Your task to perform on an android device: turn pop-ups on in chrome Image 0: 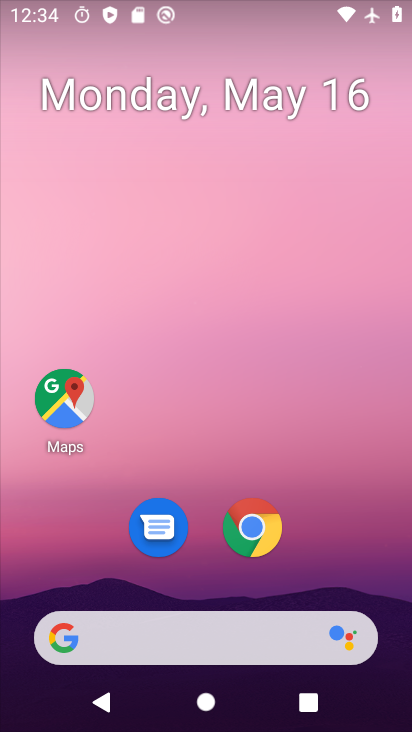
Step 0: press home button
Your task to perform on an android device: turn pop-ups on in chrome Image 1: 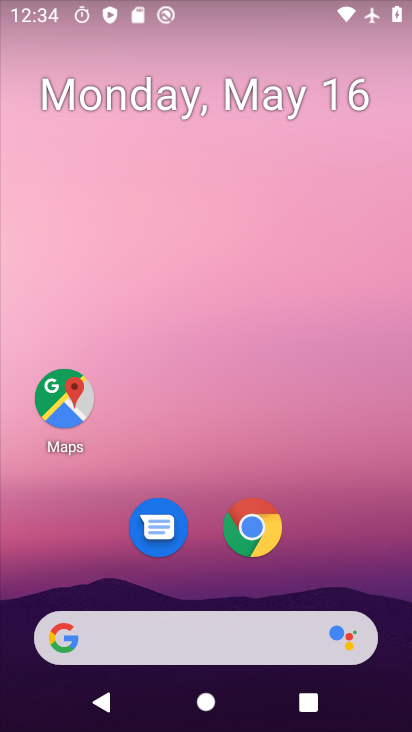
Step 1: click (252, 547)
Your task to perform on an android device: turn pop-ups on in chrome Image 2: 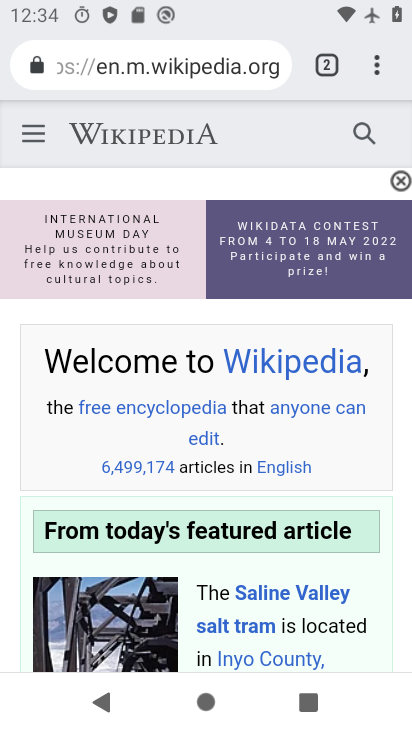
Step 2: drag from (377, 59) to (226, 592)
Your task to perform on an android device: turn pop-ups on in chrome Image 3: 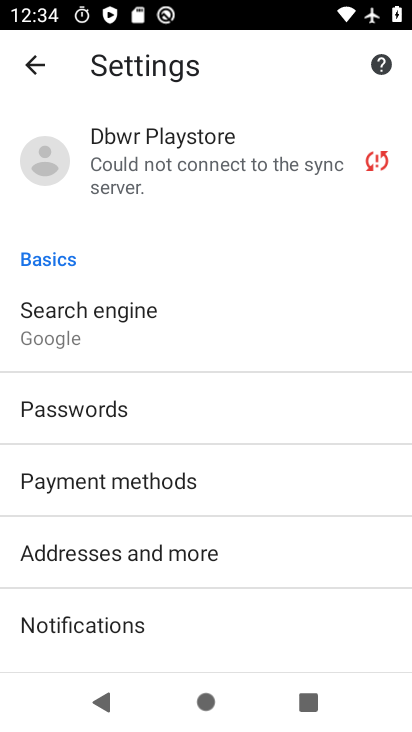
Step 3: drag from (171, 617) to (353, 169)
Your task to perform on an android device: turn pop-ups on in chrome Image 4: 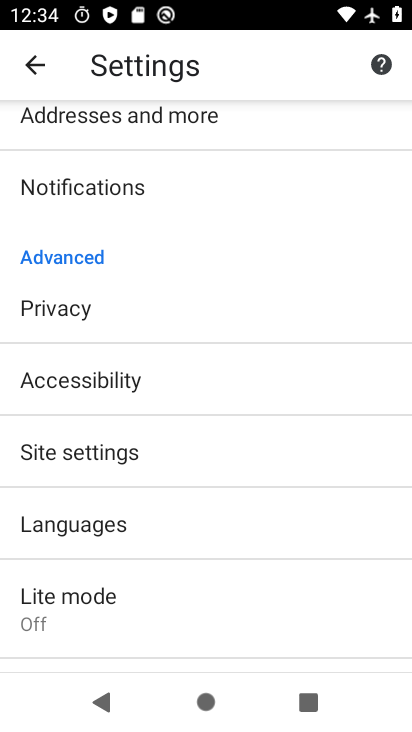
Step 4: click (115, 453)
Your task to perform on an android device: turn pop-ups on in chrome Image 5: 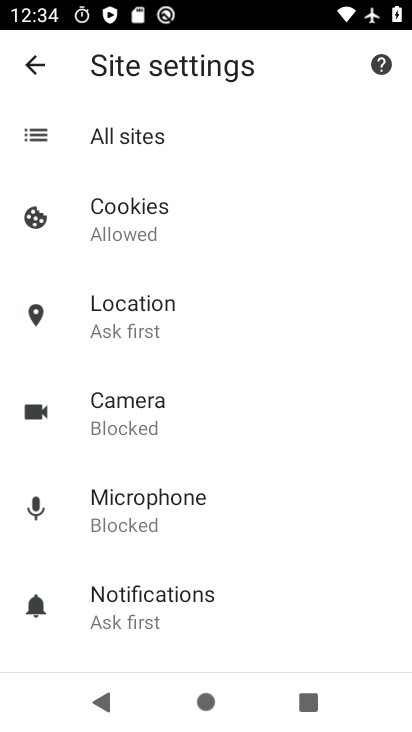
Step 5: drag from (222, 625) to (347, 159)
Your task to perform on an android device: turn pop-ups on in chrome Image 6: 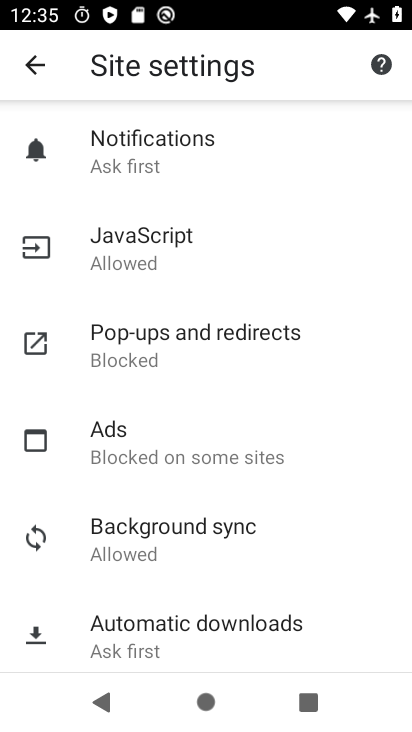
Step 6: click (195, 335)
Your task to perform on an android device: turn pop-ups on in chrome Image 7: 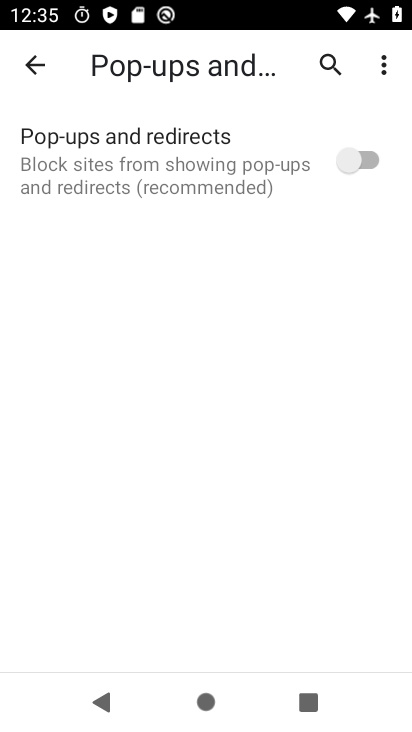
Step 7: click (361, 164)
Your task to perform on an android device: turn pop-ups on in chrome Image 8: 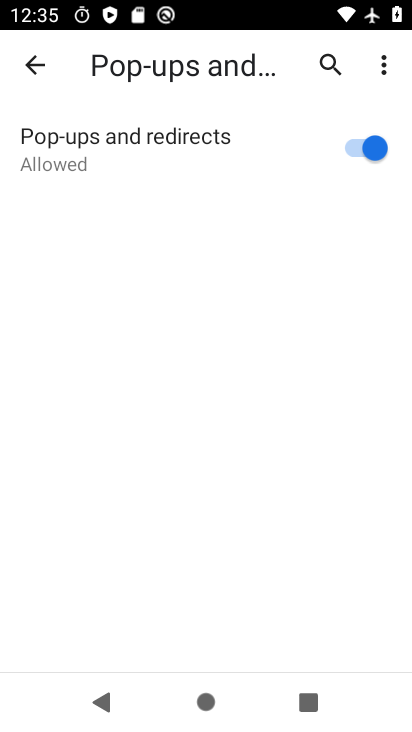
Step 8: task complete